Your task to perform on an android device: Open Wikipedia Image 0: 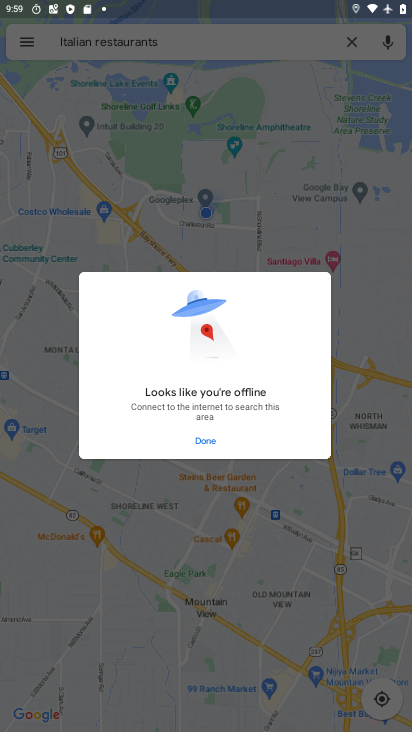
Step 0: press home button
Your task to perform on an android device: Open Wikipedia Image 1: 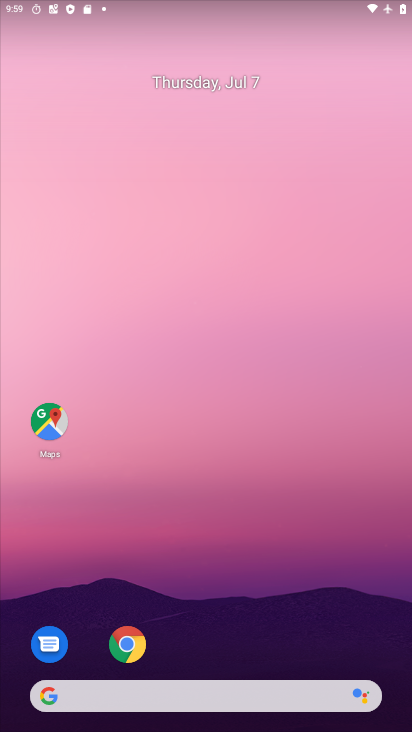
Step 1: click (126, 647)
Your task to perform on an android device: Open Wikipedia Image 2: 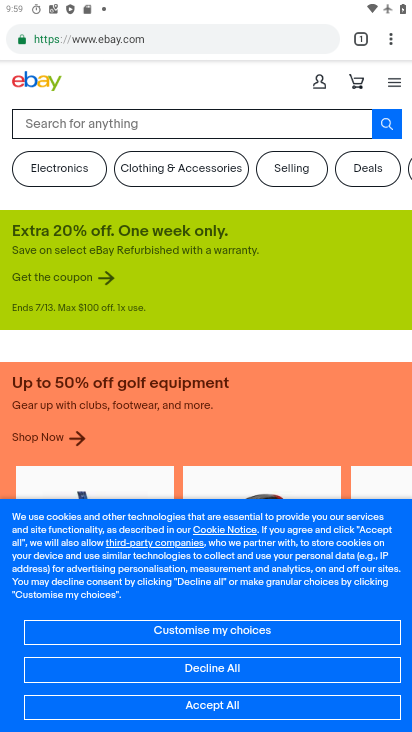
Step 2: click (208, 37)
Your task to perform on an android device: Open Wikipedia Image 3: 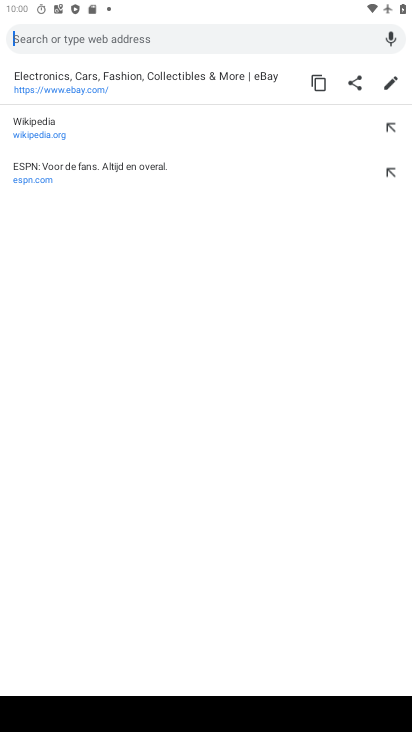
Step 3: click (14, 135)
Your task to perform on an android device: Open Wikipedia Image 4: 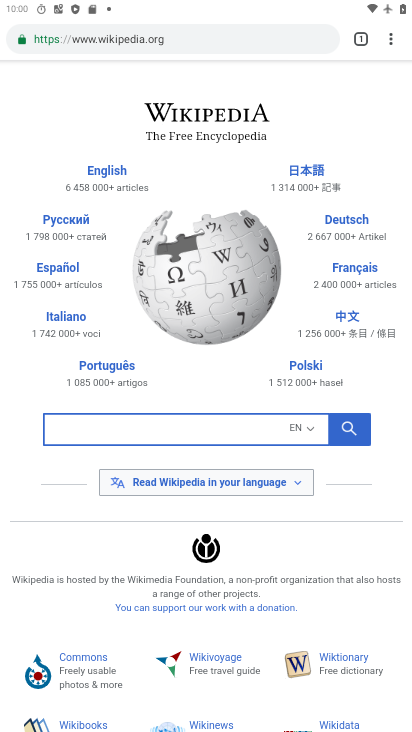
Step 4: task complete